Your task to perform on an android device: choose inbox layout in the gmail app Image 0: 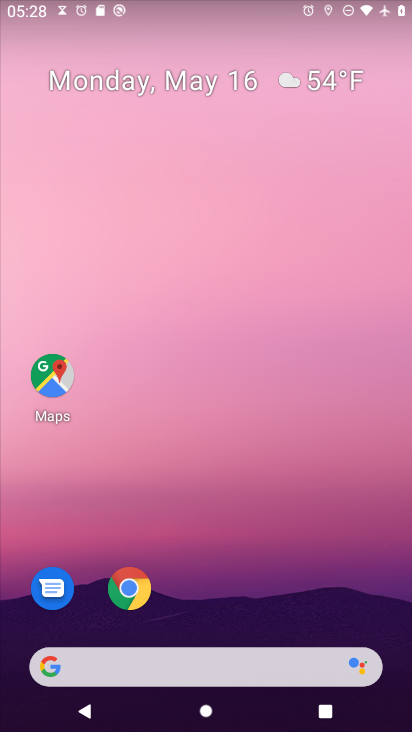
Step 0: click (250, 553)
Your task to perform on an android device: choose inbox layout in the gmail app Image 1: 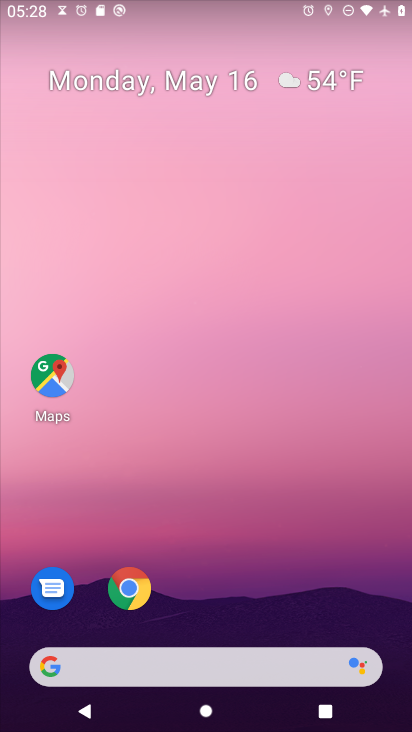
Step 1: click (256, 81)
Your task to perform on an android device: choose inbox layout in the gmail app Image 2: 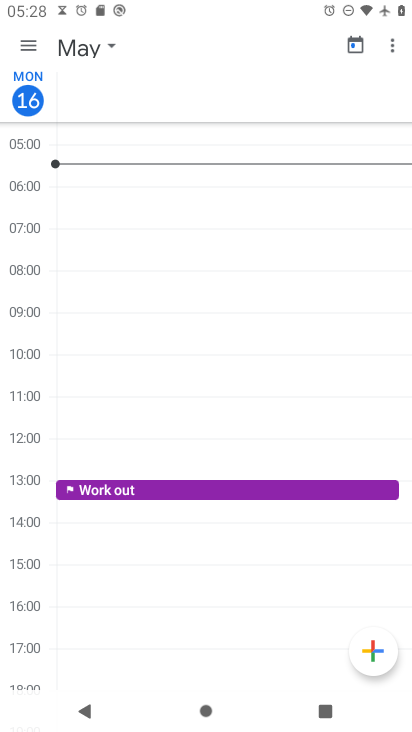
Step 2: press back button
Your task to perform on an android device: choose inbox layout in the gmail app Image 3: 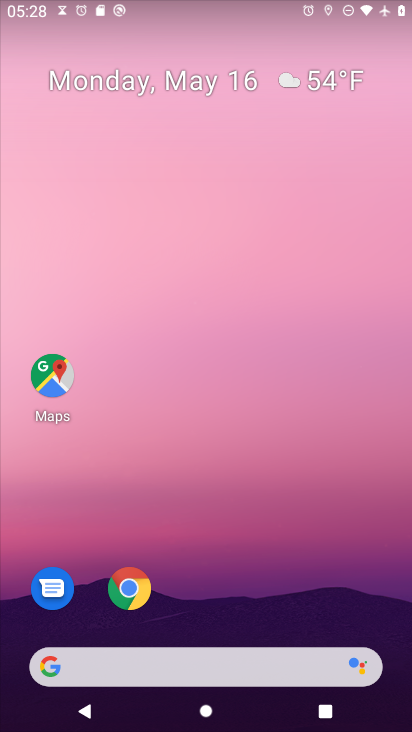
Step 3: drag from (185, 577) to (197, 149)
Your task to perform on an android device: choose inbox layout in the gmail app Image 4: 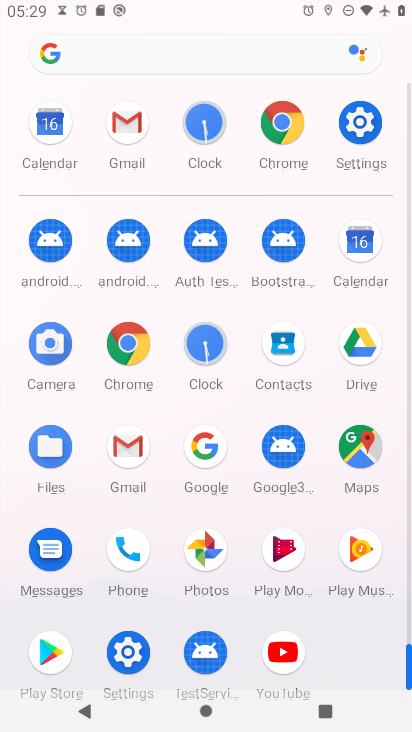
Step 4: click (132, 441)
Your task to perform on an android device: choose inbox layout in the gmail app Image 5: 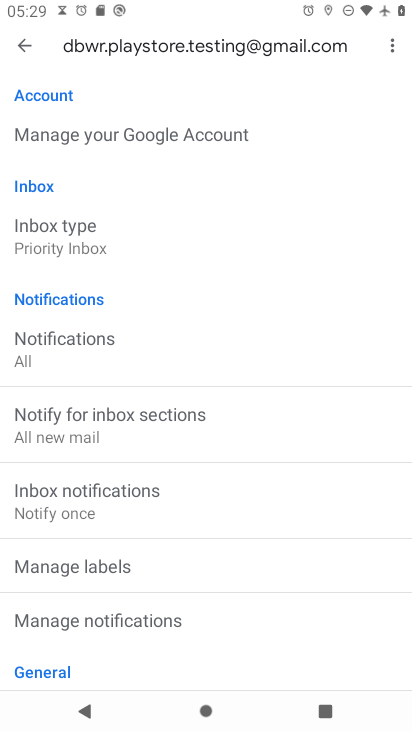
Step 5: click (103, 230)
Your task to perform on an android device: choose inbox layout in the gmail app Image 6: 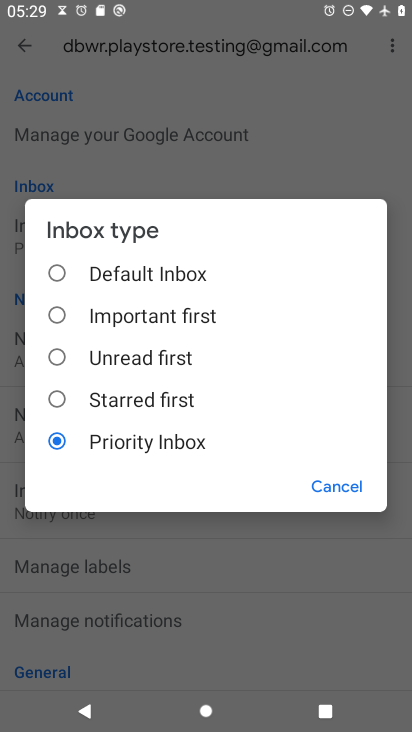
Step 6: click (129, 268)
Your task to perform on an android device: choose inbox layout in the gmail app Image 7: 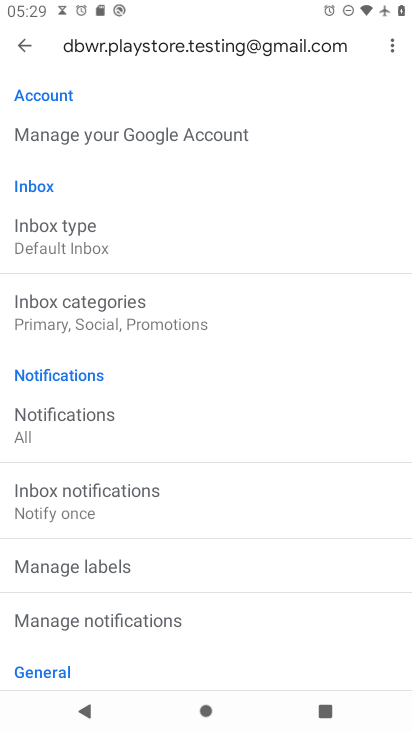
Step 7: task complete